Your task to perform on an android device: toggle javascript in the chrome app Image 0: 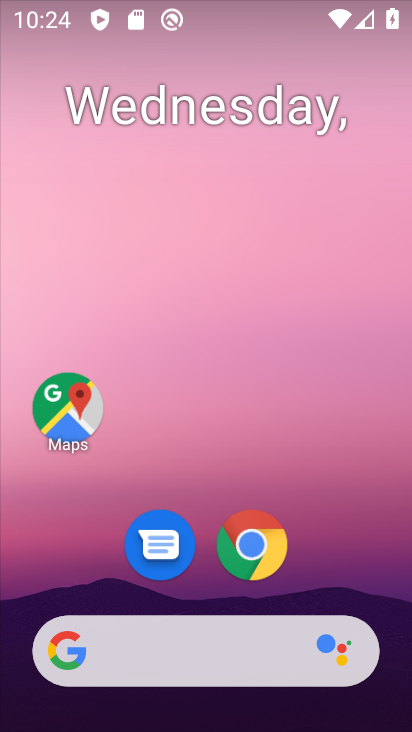
Step 0: click (246, 561)
Your task to perform on an android device: toggle javascript in the chrome app Image 1: 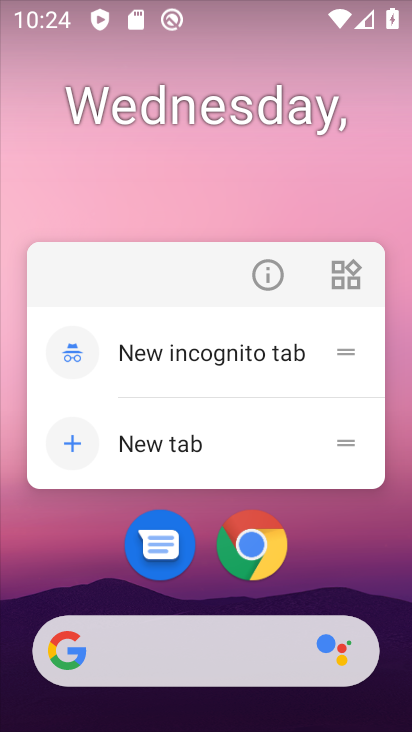
Step 1: click (244, 528)
Your task to perform on an android device: toggle javascript in the chrome app Image 2: 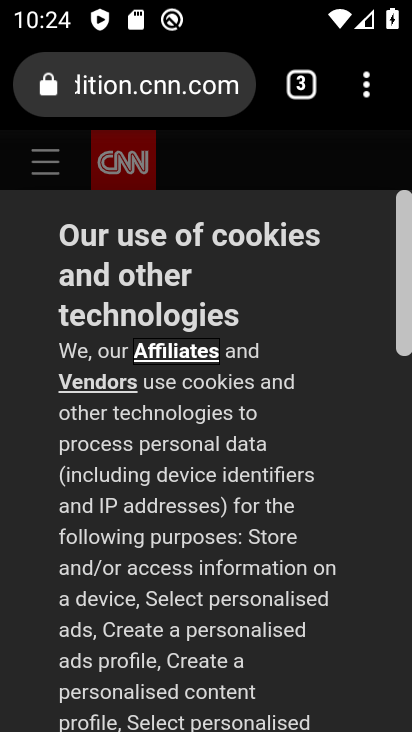
Step 2: click (367, 71)
Your task to perform on an android device: toggle javascript in the chrome app Image 3: 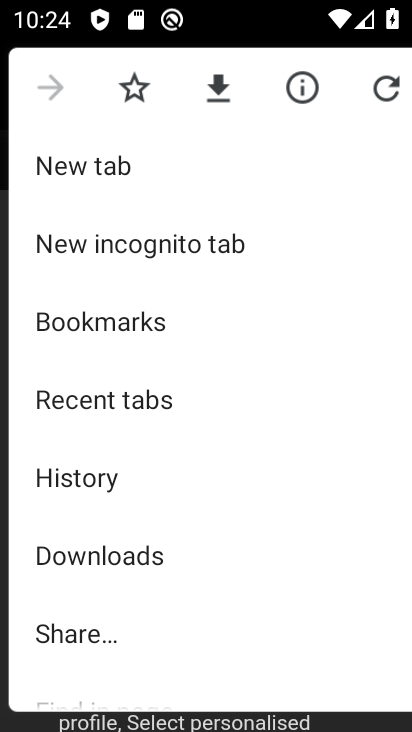
Step 3: drag from (280, 596) to (279, 449)
Your task to perform on an android device: toggle javascript in the chrome app Image 4: 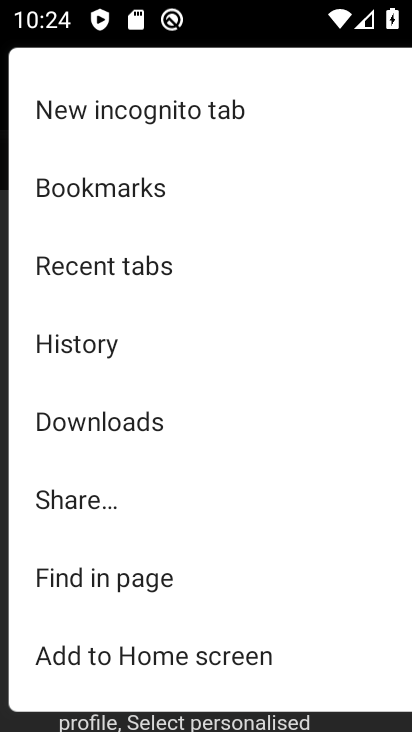
Step 4: drag from (225, 606) to (230, 366)
Your task to perform on an android device: toggle javascript in the chrome app Image 5: 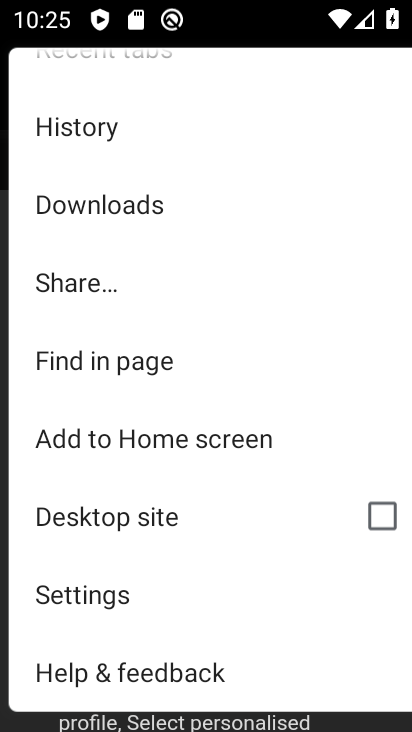
Step 5: click (138, 595)
Your task to perform on an android device: toggle javascript in the chrome app Image 6: 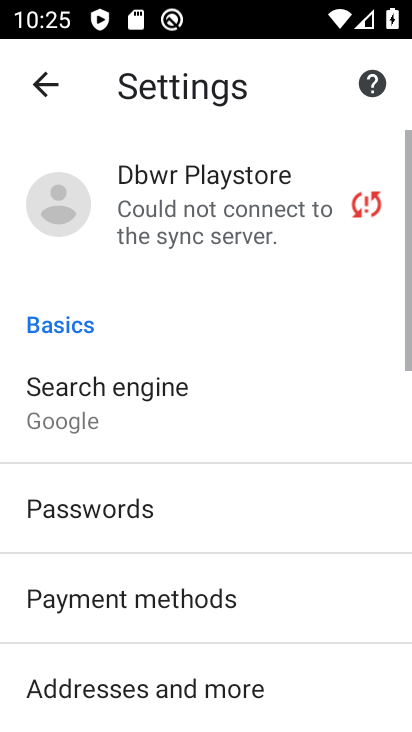
Step 6: drag from (202, 622) to (263, 291)
Your task to perform on an android device: toggle javascript in the chrome app Image 7: 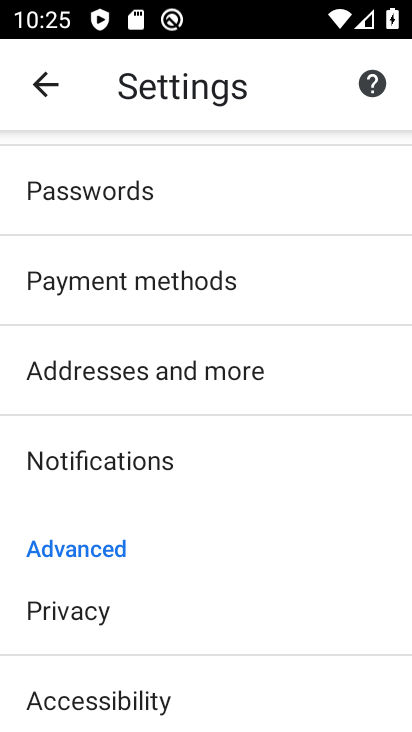
Step 7: drag from (157, 659) to (200, 368)
Your task to perform on an android device: toggle javascript in the chrome app Image 8: 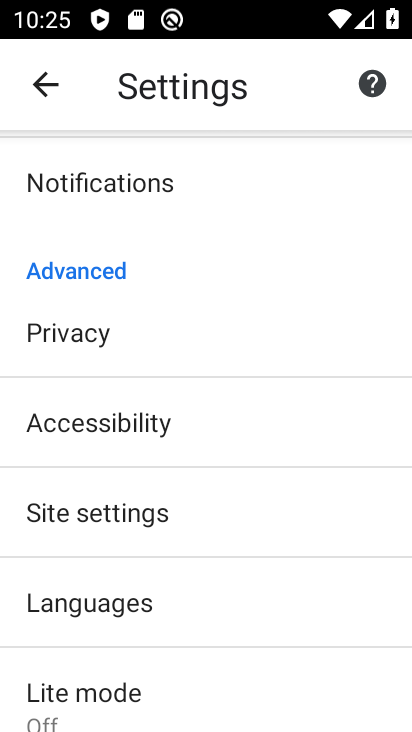
Step 8: click (157, 517)
Your task to perform on an android device: toggle javascript in the chrome app Image 9: 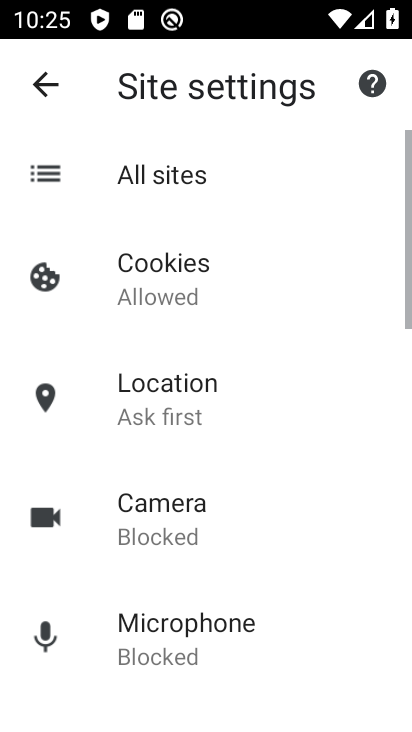
Step 9: drag from (222, 646) to (241, 435)
Your task to perform on an android device: toggle javascript in the chrome app Image 10: 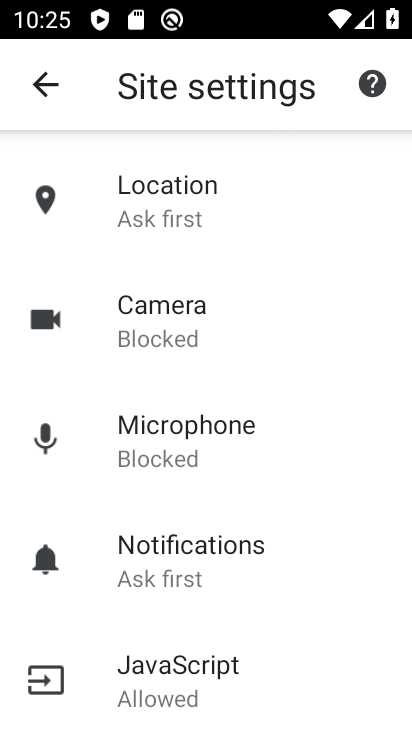
Step 10: click (197, 653)
Your task to perform on an android device: toggle javascript in the chrome app Image 11: 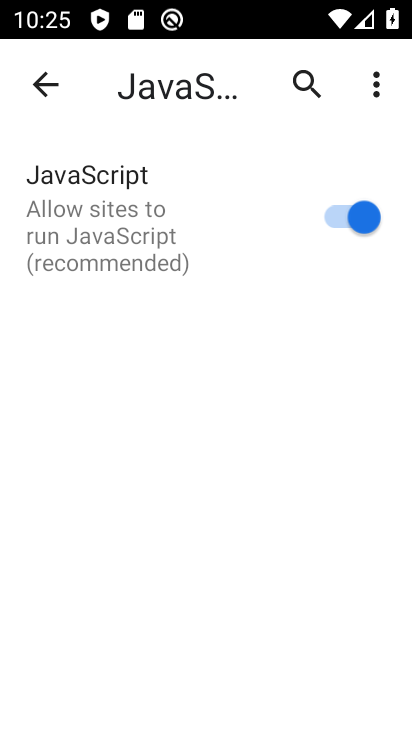
Step 11: click (333, 217)
Your task to perform on an android device: toggle javascript in the chrome app Image 12: 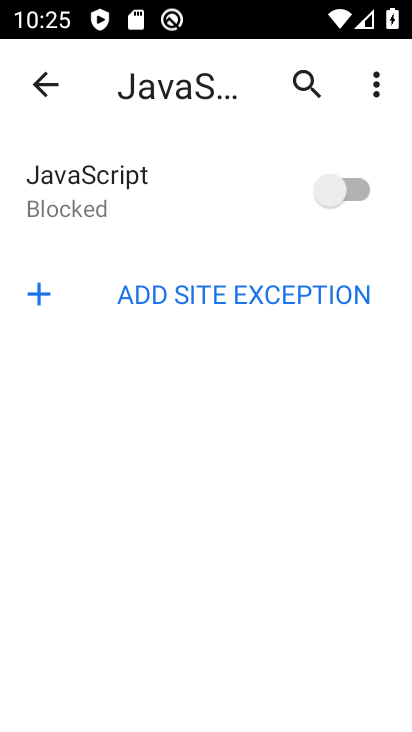
Step 12: task complete